Your task to perform on an android device: Search for seafood restaurants on Google Maps Image 0: 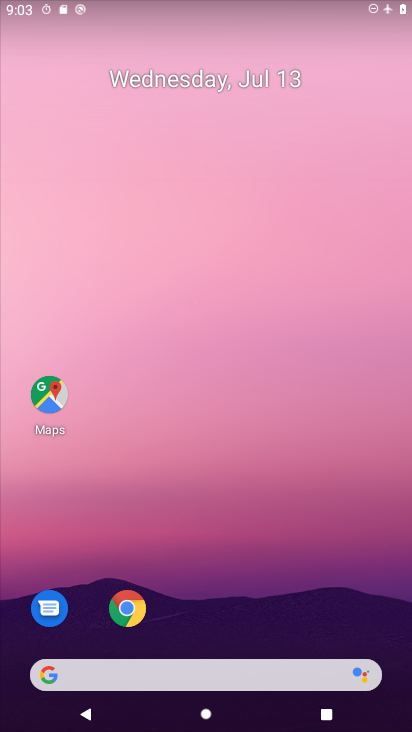
Step 0: drag from (268, 569) to (235, 171)
Your task to perform on an android device: Search for seafood restaurants on Google Maps Image 1: 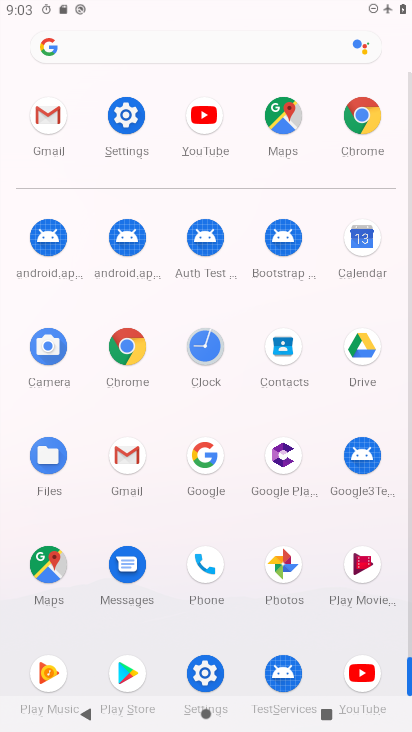
Step 1: click (37, 568)
Your task to perform on an android device: Search for seafood restaurants on Google Maps Image 2: 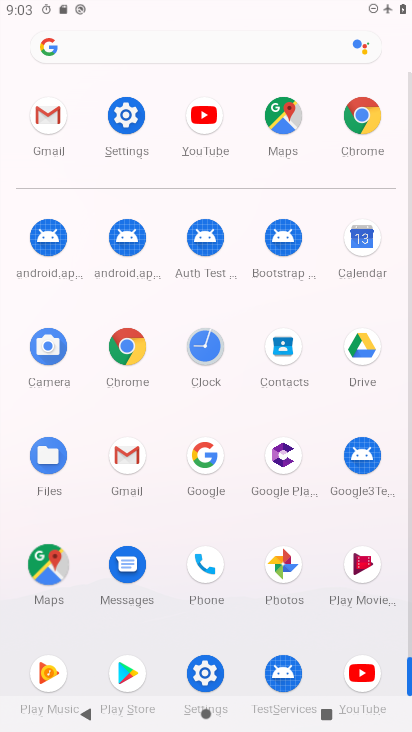
Step 2: click (51, 571)
Your task to perform on an android device: Search for seafood restaurants on Google Maps Image 3: 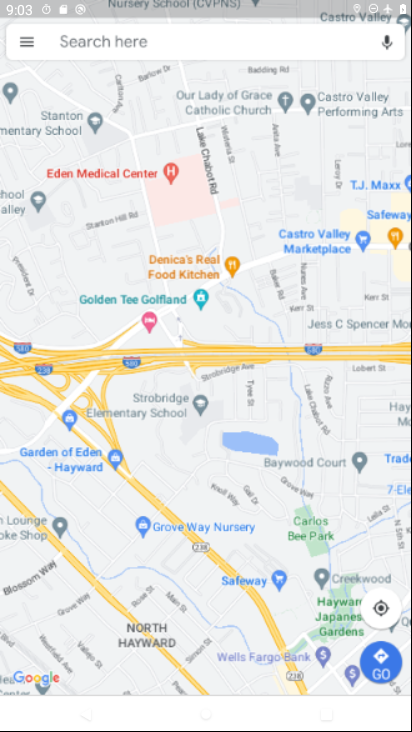
Step 3: click (51, 571)
Your task to perform on an android device: Search for seafood restaurants on Google Maps Image 4: 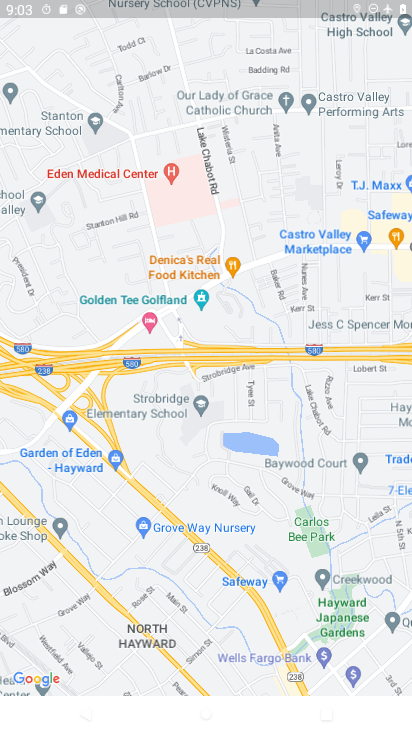
Step 4: click (95, 40)
Your task to perform on an android device: Search for seafood restaurants on Google Maps Image 5: 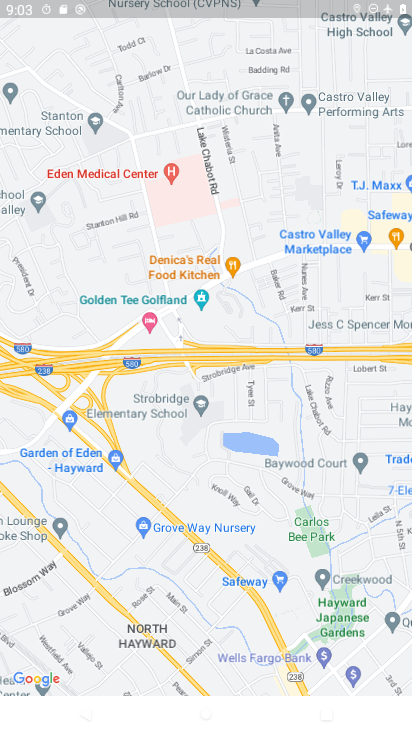
Step 5: drag from (102, 69) to (117, 123)
Your task to perform on an android device: Search for seafood restaurants on Google Maps Image 6: 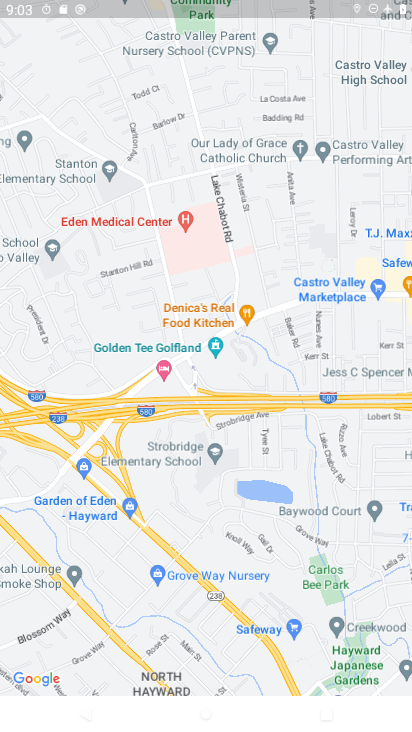
Step 6: drag from (162, 16) to (162, 68)
Your task to perform on an android device: Search for seafood restaurants on Google Maps Image 7: 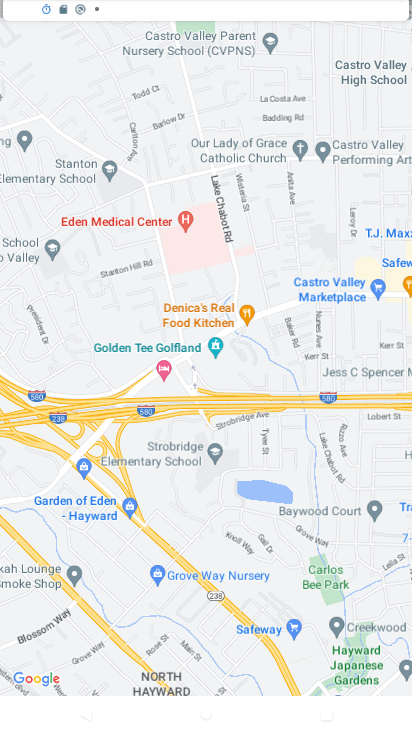
Step 7: click (160, 73)
Your task to perform on an android device: Search for seafood restaurants on Google Maps Image 8: 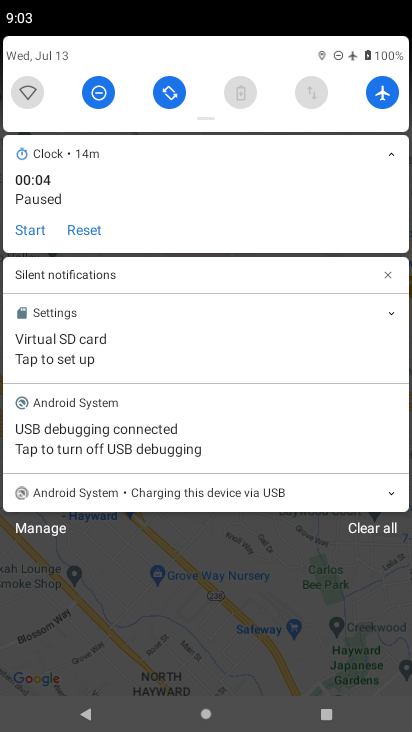
Step 8: click (119, 600)
Your task to perform on an android device: Search for seafood restaurants on Google Maps Image 9: 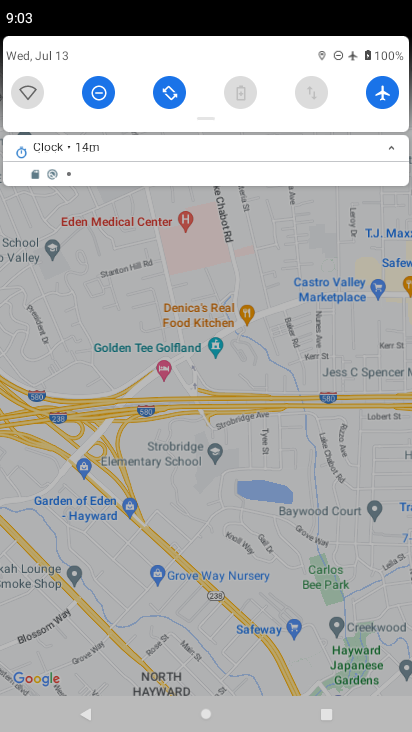
Step 9: click (126, 591)
Your task to perform on an android device: Search for seafood restaurants on Google Maps Image 10: 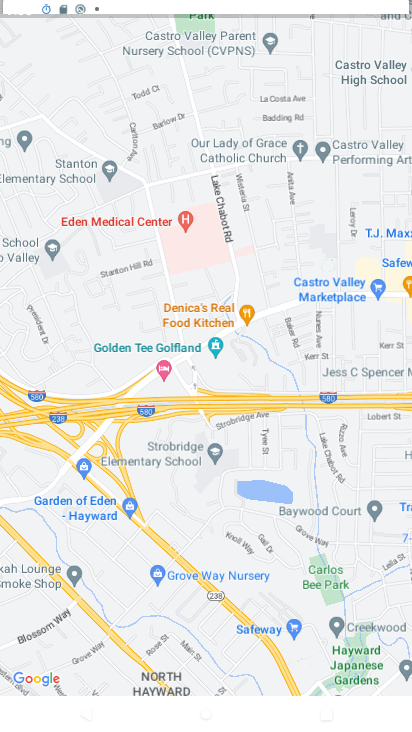
Step 10: click (131, 592)
Your task to perform on an android device: Search for seafood restaurants on Google Maps Image 11: 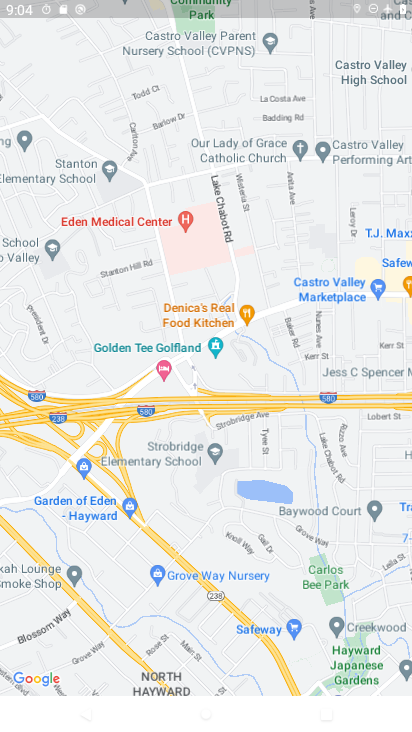
Step 11: click (122, 65)
Your task to perform on an android device: Search for seafood restaurants on Google Maps Image 12: 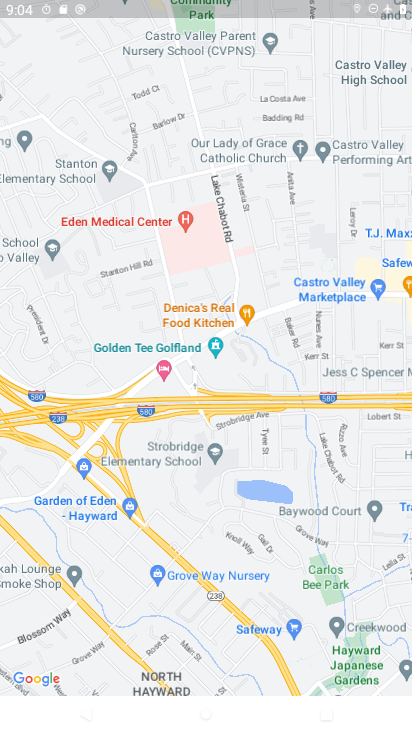
Step 12: click (130, 132)
Your task to perform on an android device: Search for seafood restaurants on Google Maps Image 13: 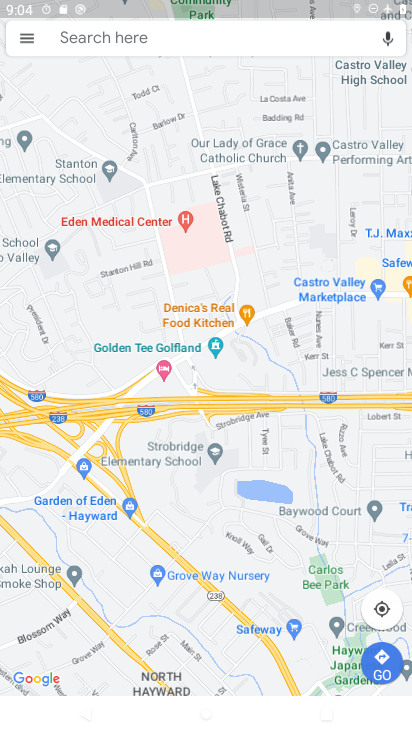
Step 13: click (130, 132)
Your task to perform on an android device: Search for seafood restaurants on Google Maps Image 14: 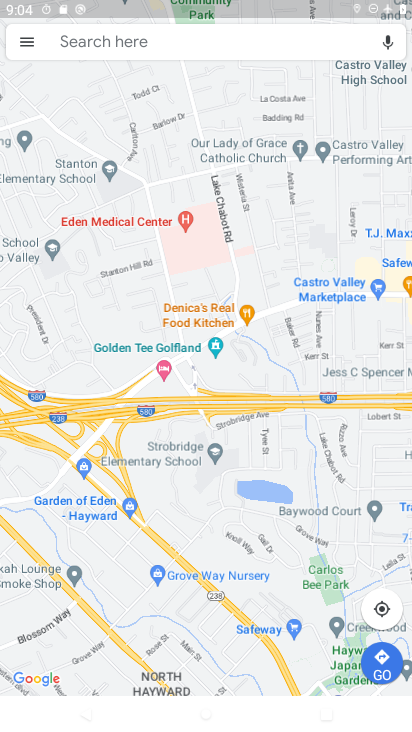
Step 14: click (113, 92)
Your task to perform on an android device: Search for seafood restaurants on Google Maps Image 15: 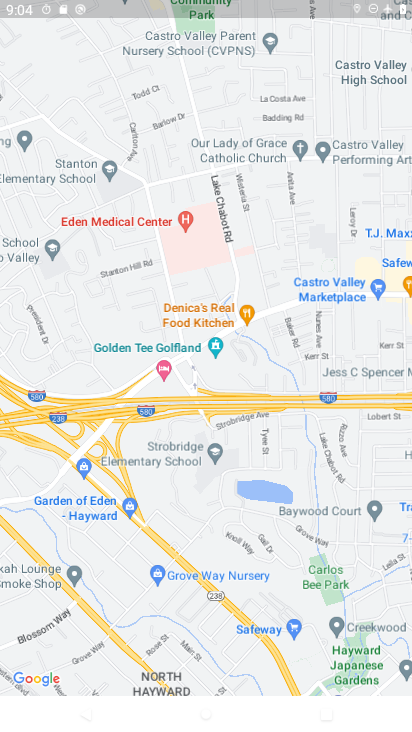
Step 15: click (112, 104)
Your task to perform on an android device: Search for seafood restaurants on Google Maps Image 16: 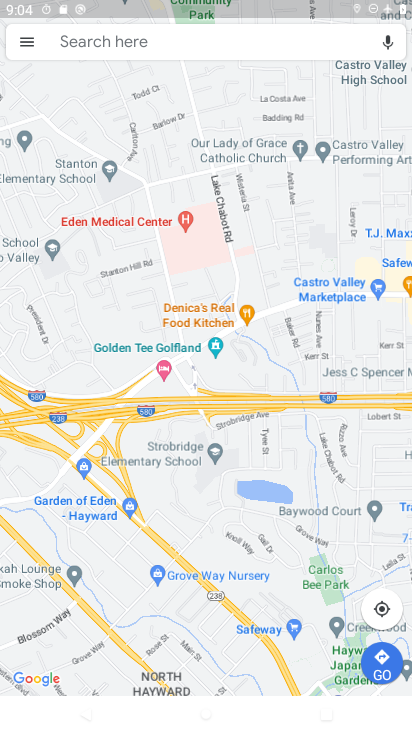
Step 16: click (90, 32)
Your task to perform on an android device: Search for seafood restaurants on Google Maps Image 17: 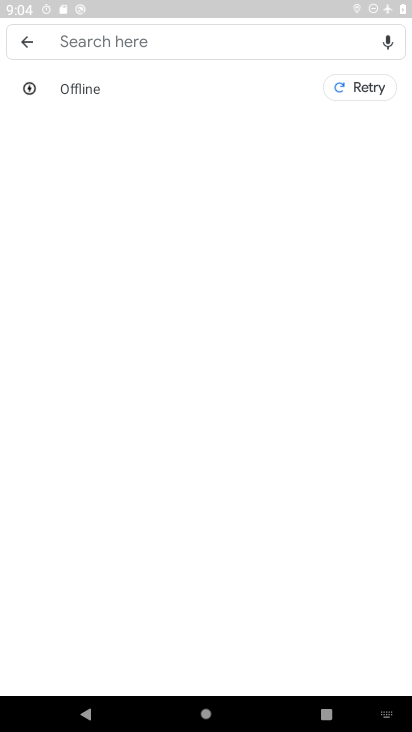
Step 17: type "seafood restaurants"
Your task to perform on an android device: Search for seafood restaurants on Google Maps Image 18: 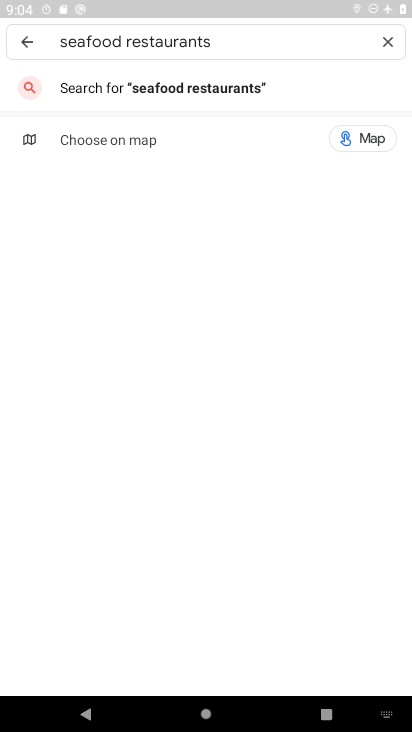
Step 18: click (181, 92)
Your task to perform on an android device: Search for seafood restaurants on Google Maps Image 19: 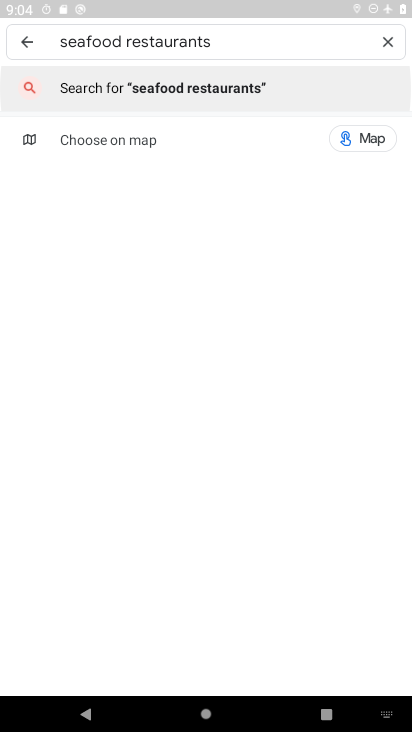
Step 19: click (184, 92)
Your task to perform on an android device: Search for seafood restaurants on Google Maps Image 20: 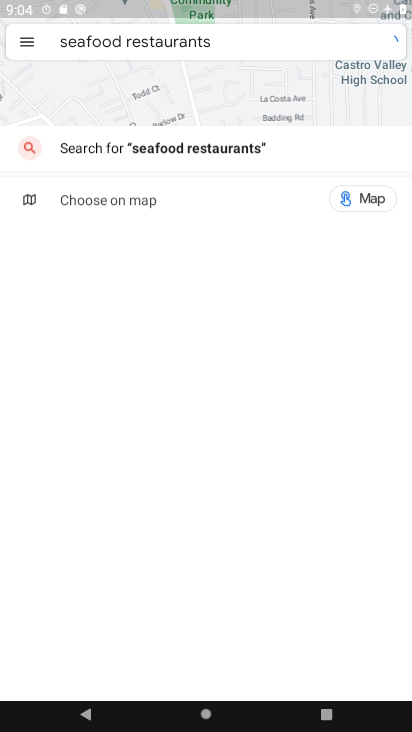
Step 20: click (186, 92)
Your task to perform on an android device: Search for seafood restaurants on Google Maps Image 21: 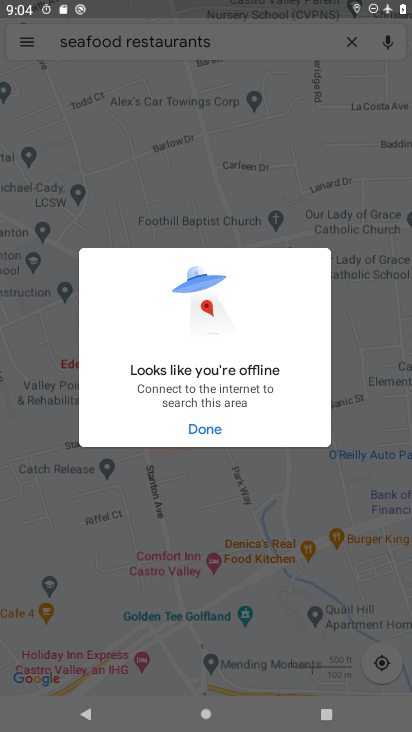
Step 21: click (199, 423)
Your task to perform on an android device: Search for seafood restaurants on Google Maps Image 22: 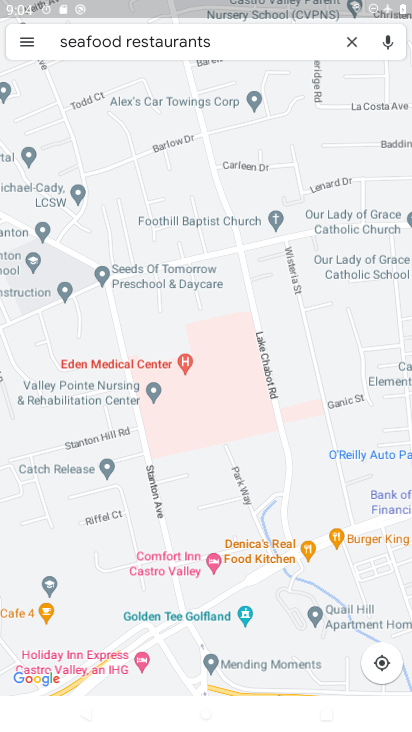
Step 22: task complete